Your task to perform on an android device: turn off picture-in-picture Image 0: 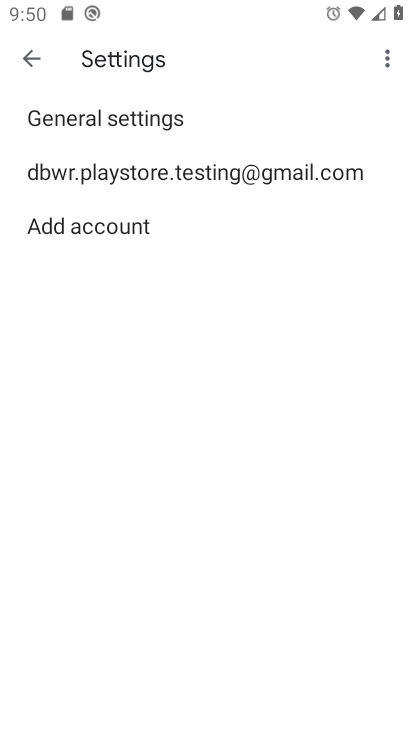
Step 0: press home button
Your task to perform on an android device: turn off picture-in-picture Image 1: 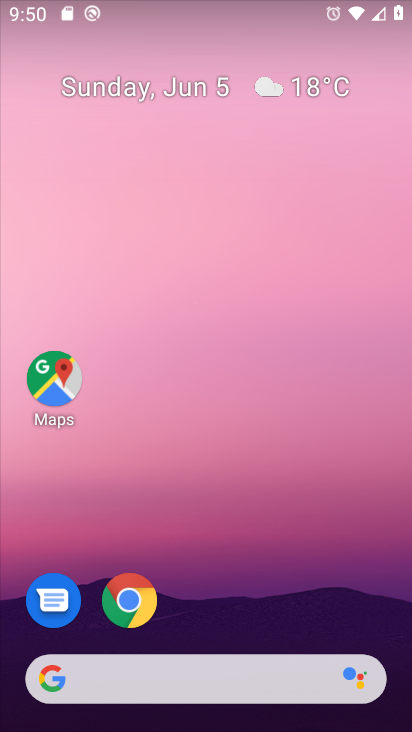
Step 1: click (130, 584)
Your task to perform on an android device: turn off picture-in-picture Image 2: 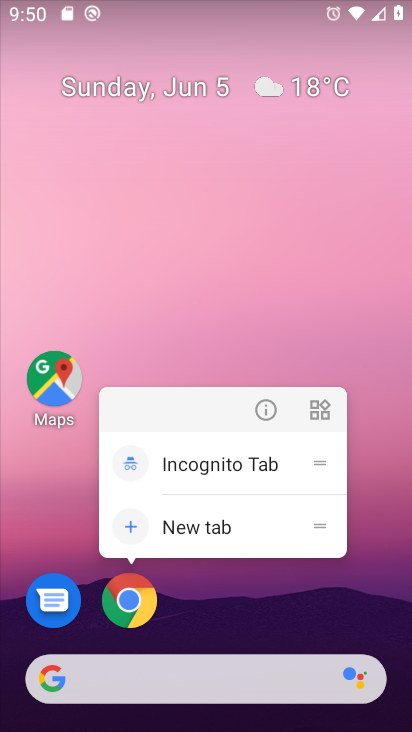
Step 2: click (266, 410)
Your task to perform on an android device: turn off picture-in-picture Image 3: 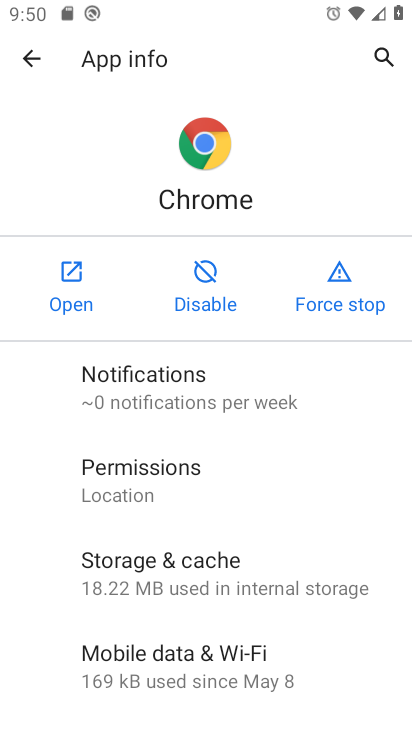
Step 3: drag from (243, 523) to (164, 99)
Your task to perform on an android device: turn off picture-in-picture Image 4: 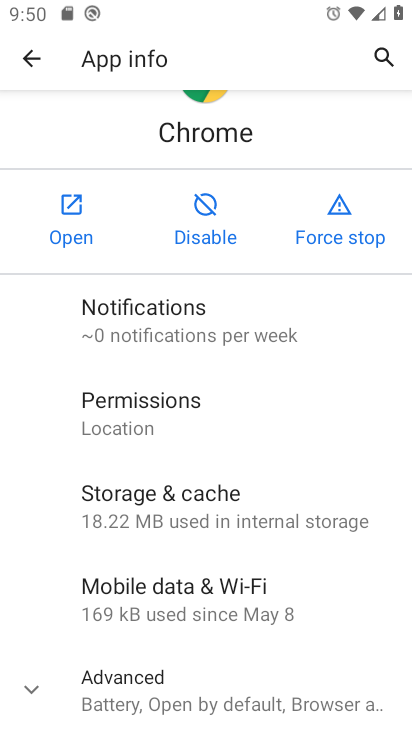
Step 4: click (24, 686)
Your task to perform on an android device: turn off picture-in-picture Image 5: 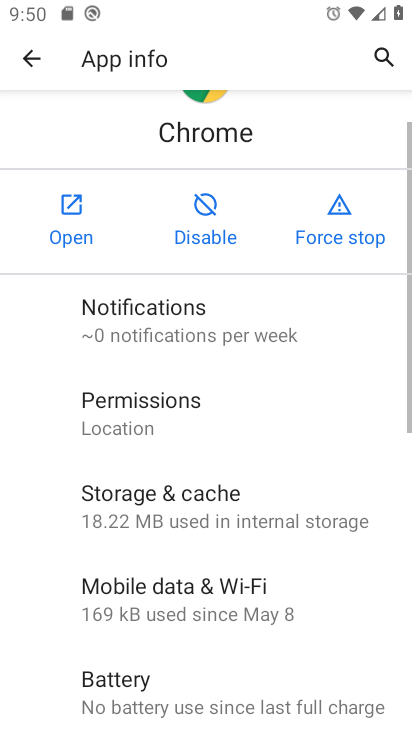
Step 5: drag from (250, 614) to (161, 107)
Your task to perform on an android device: turn off picture-in-picture Image 6: 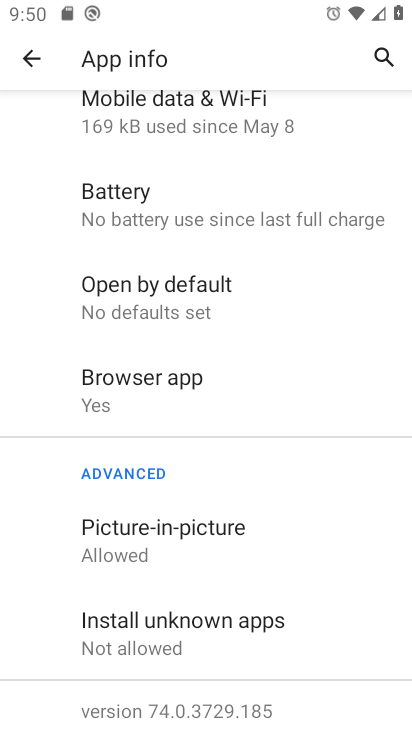
Step 6: click (193, 544)
Your task to perform on an android device: turn off picture-in-picture Image 7: 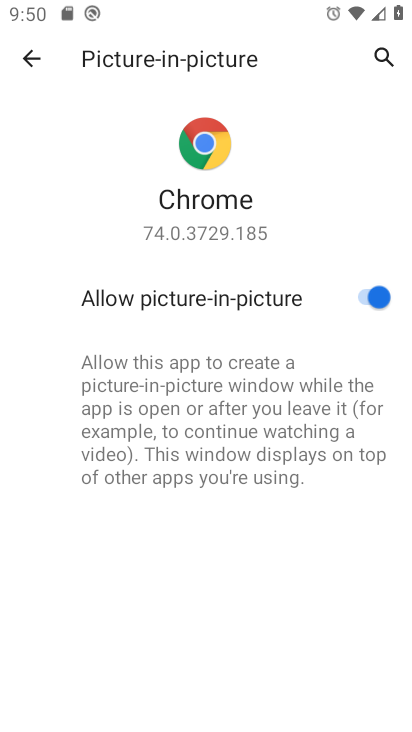
Step 7: click (369, 294)
Your task to perform on an android device: turn off picture-in-picture Image 8: 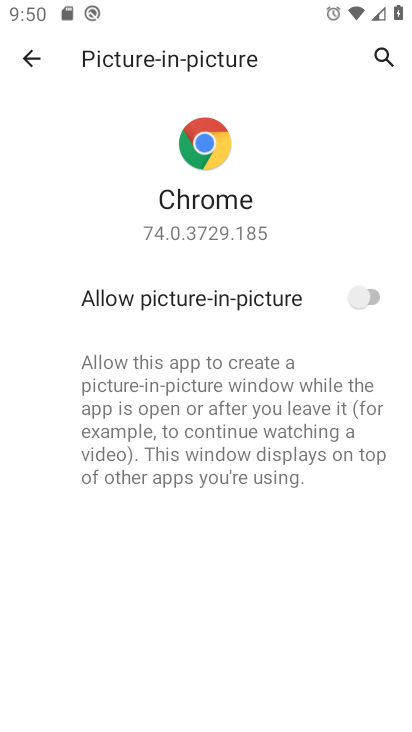
Step 8: task complete